Your task to perform on an android device: Open CNN.com Image 0: 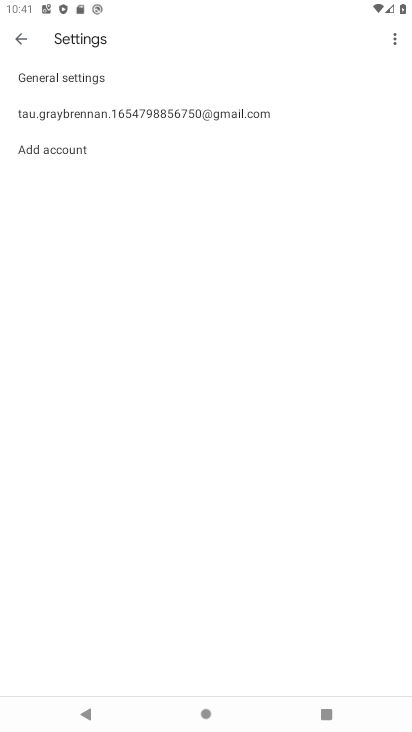
Step 0: press home button
Your task to perform on an android device: Open CNN.com Image 1: 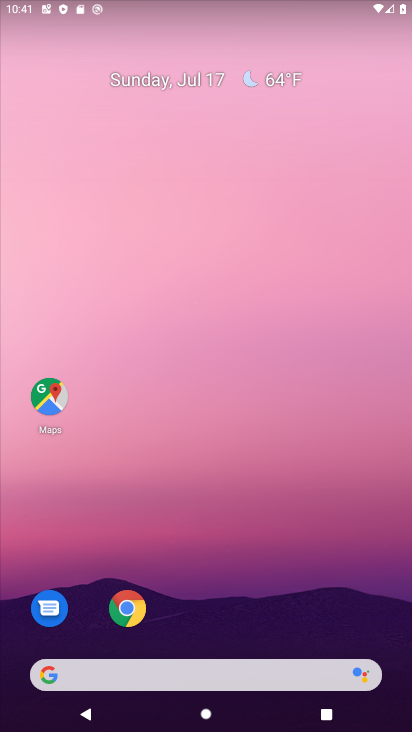
Step 1: drag from (368, 595) to (284, 0)
Your task to perform on an android device: Open CNN.com Image 2: 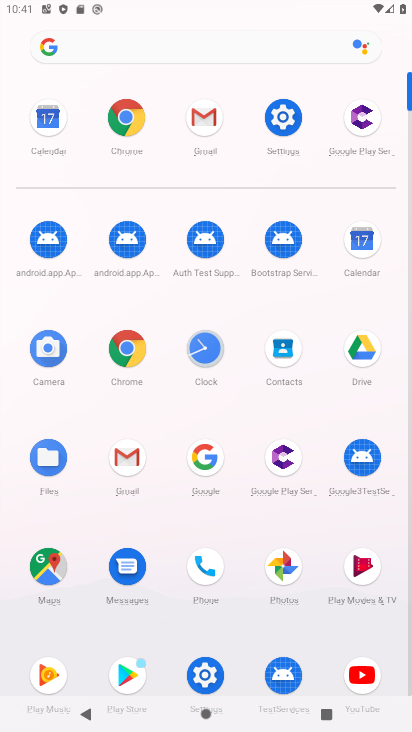
Step 2: click (198, 460)
Your task to perform on an android device: Open CNN.com Image 3: 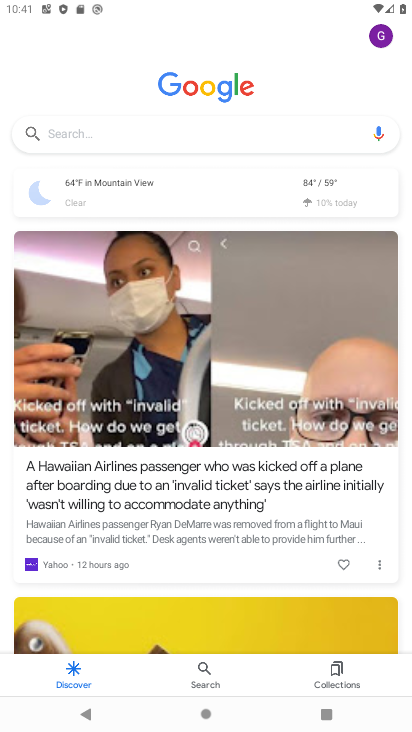
Step 3: click (101, 136)
Your task to perform on an android device: Open CNN.com Image 4: 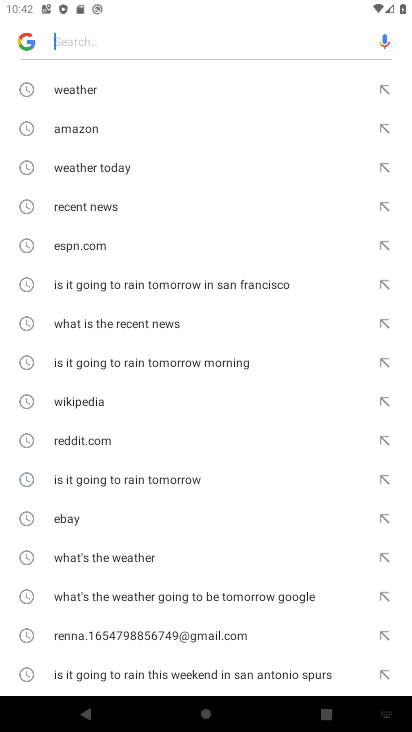
Step 4: type "CNN.com"
Your task to perform on an android device: Open CNN.com Image 5: 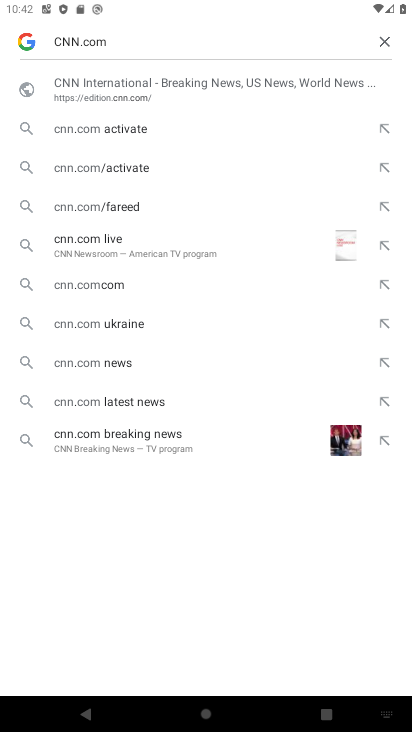
Step 5: click (74, 96)
Your task to perform on an android device: Open CNN.com Image 6: 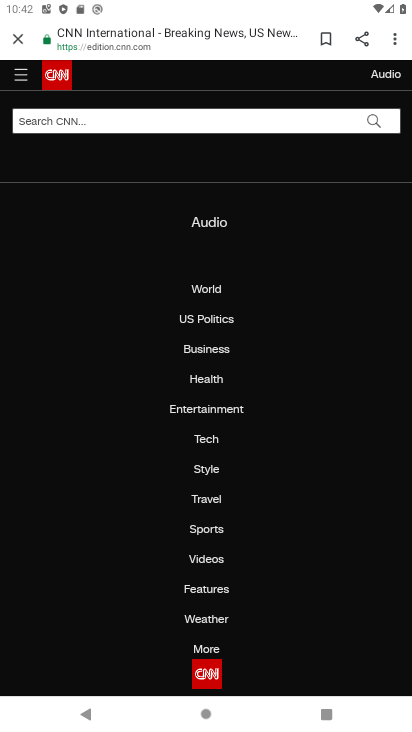
Step 6: task complete